Your task to perform on an android device: add a contact Image 0: 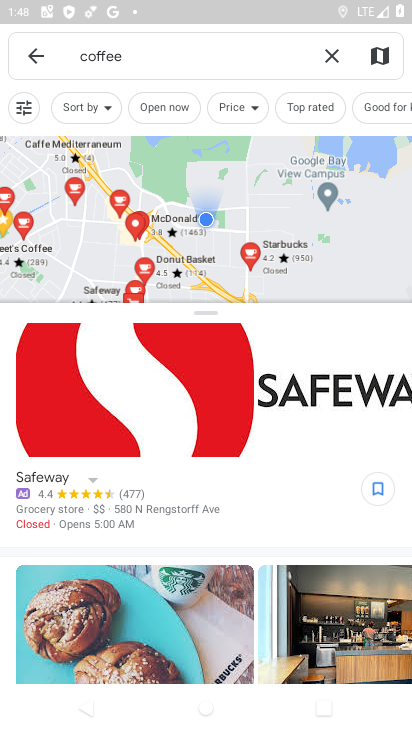
Step 0: press home button
Your task to perform on an android device: add a contact Image 1: 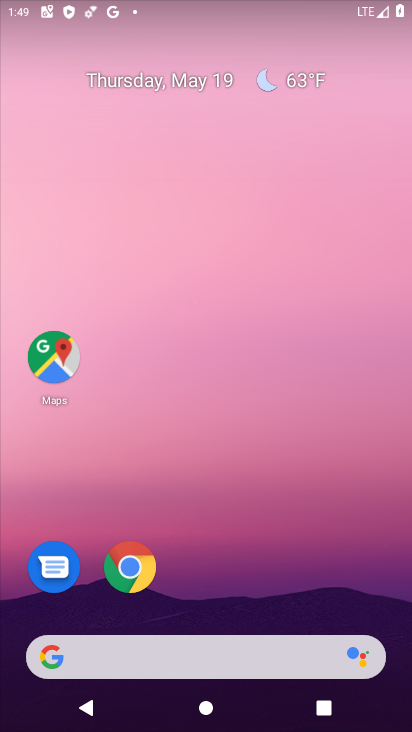
Step 1: drag from (232, 543) to (171, 125)
Your task to perform on an android device: add a contact Image 2: 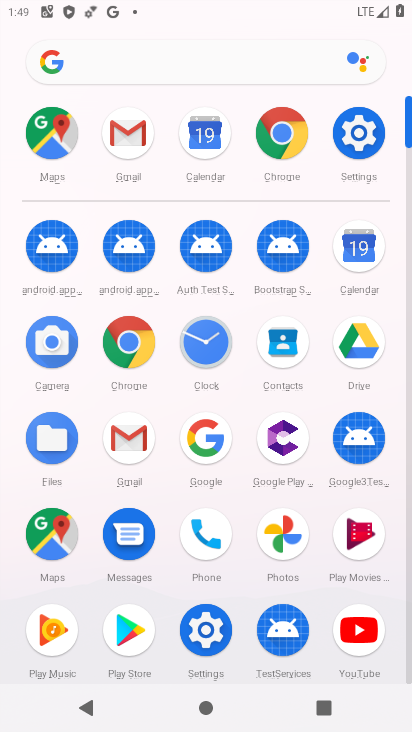
Step 2: click (299, 365)
Your task to perform on an android device: add a contact Image 3: 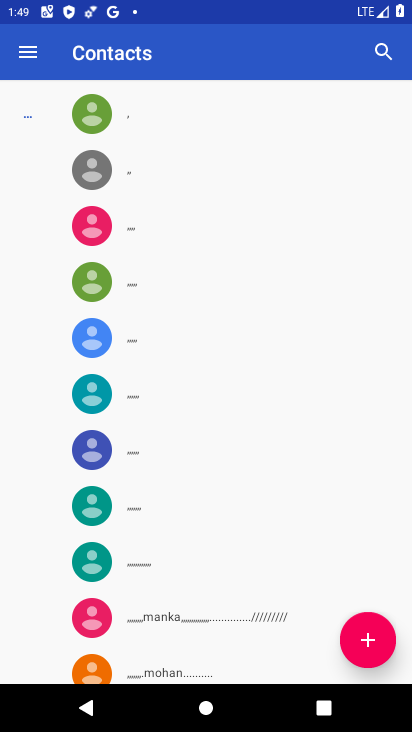
Step 3: click (374, 656)
Your task to perform on an android device: add a contact Image 4: 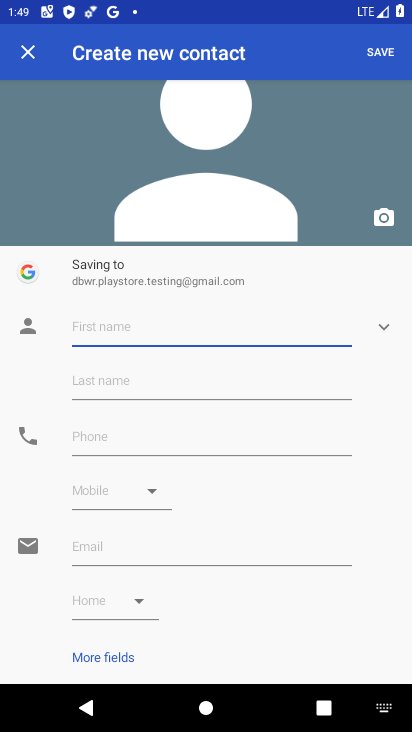
Step 4: type "hgggg"
Your task to perform on an android device: add a contact Image 5: 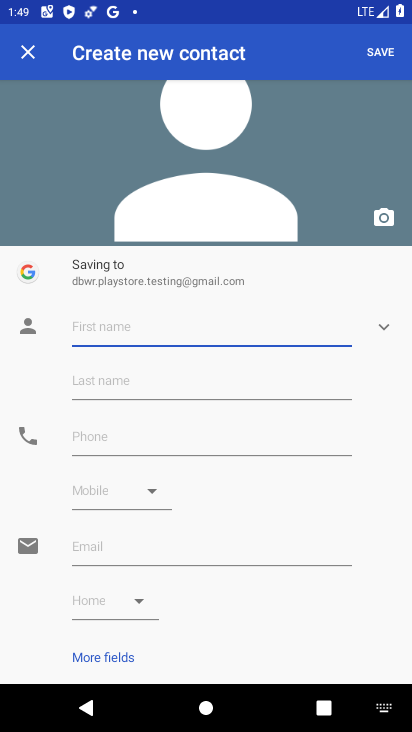
Step 5: click (97, 446)
Your task to perform on an android device: add a contact Image 6: 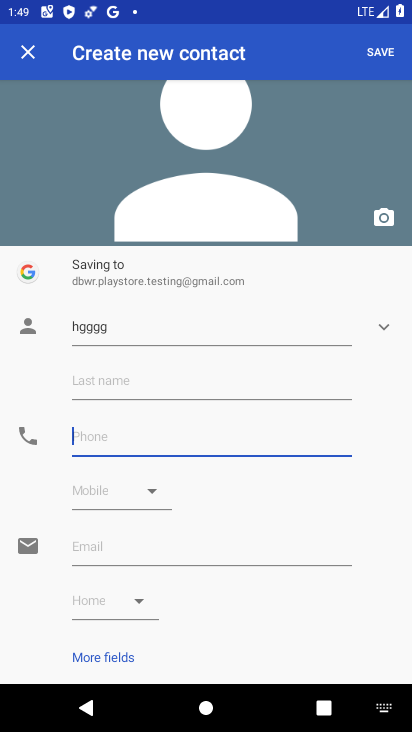
Step 6: type "65467877777777"
Your task to perform on an android device: add a contact Image 7: 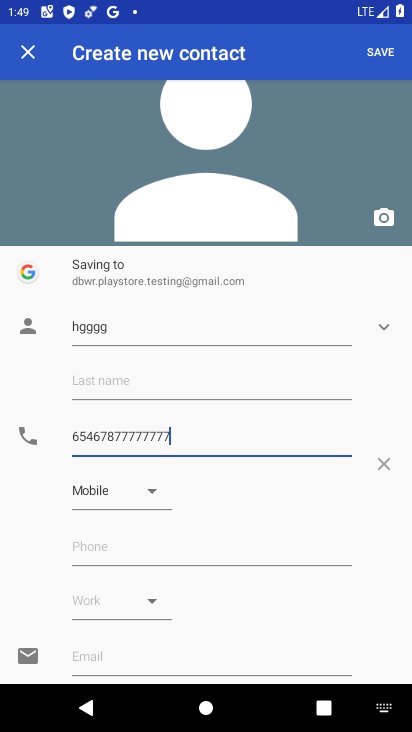
Step 7: click (381, 59)
Your task to perform on an android device: add a contact Image 8: 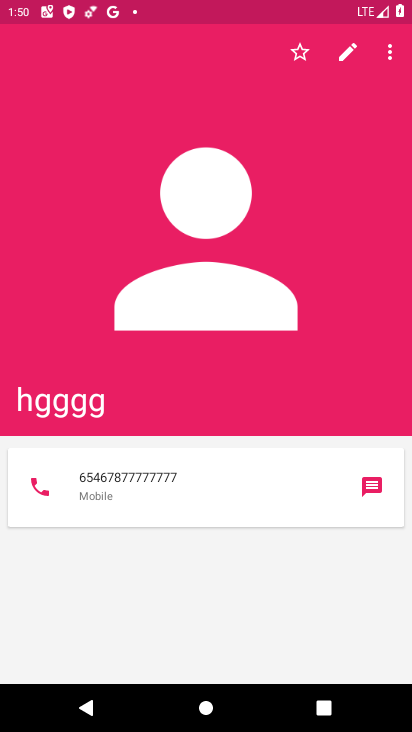
Step 8: task complete